Your task to perform on an android device: snooze an email in the gmail app Image 0: 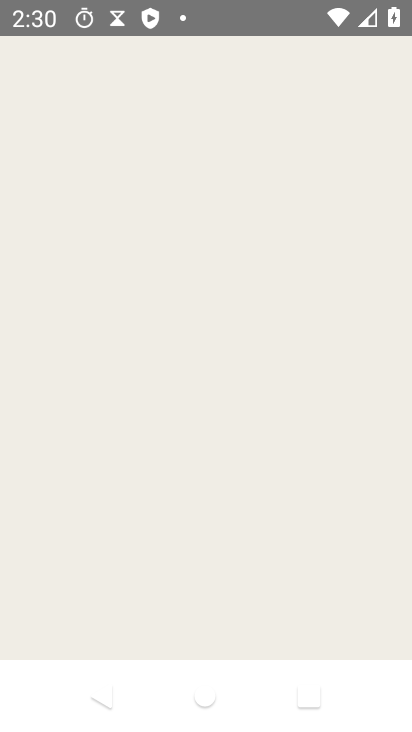
Step 0: press home button
Your task to perform on an android device: snooze an email in the gmail app Image 1: 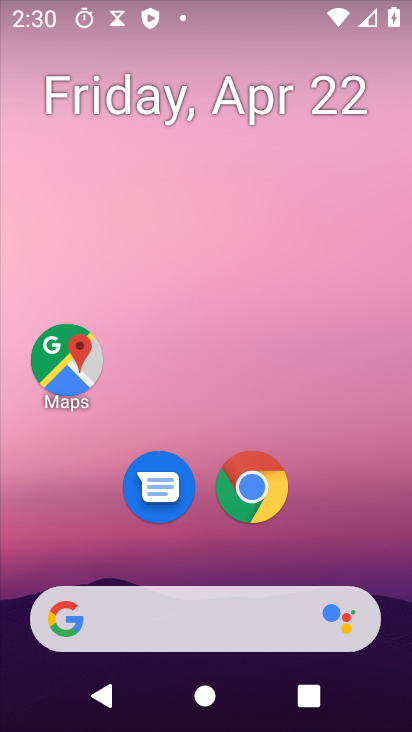
Step 1: drag from (169, 626) to (218, 162)
Your task to perform on an android device: snooze an email in the gmail app Image 2: 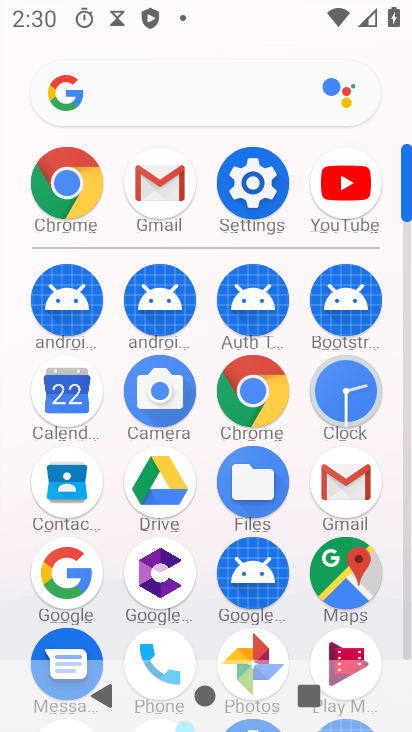
Step 2: click (169, 202)
Your task to perform on an android device: snooze an email in the gmail app Image 3: 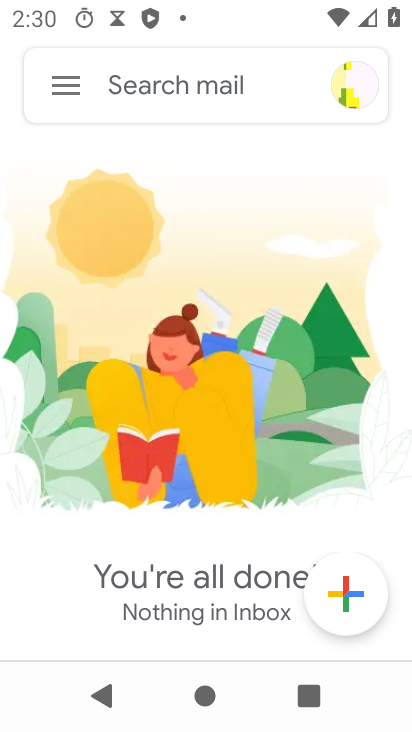
Step 3: task complete